Your task to perform on an android device: turn off location history Image 0: 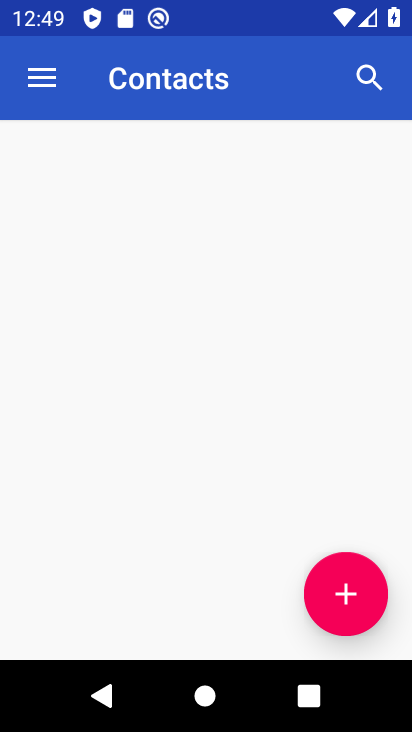
Step 0: press home button
Your task to perform on an android device: turn off location history Image 1: 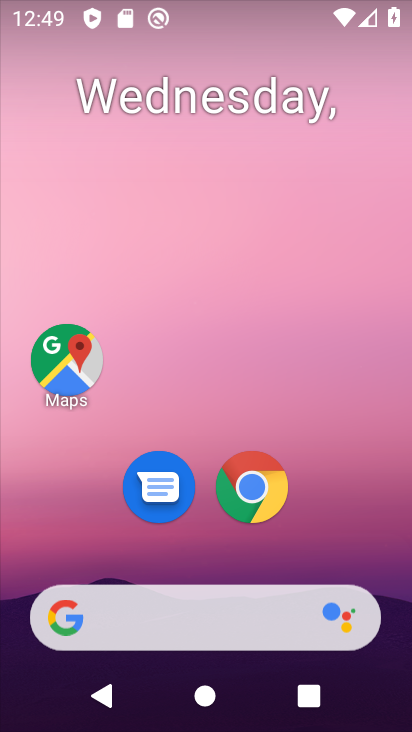
Step 1: drag from (202, 545) to (267, 75)
Your task to perform on an android device: turn off location history Image 2: 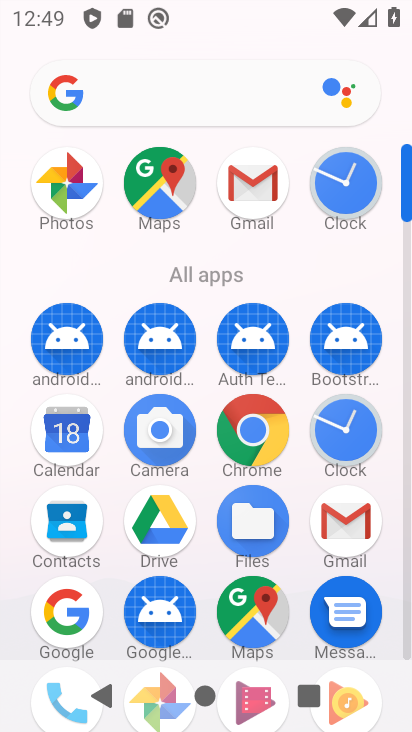
Step 2: drag from (239, 479) to (250, 344)
Your task to perform on an android device: turn off location history Image 3: 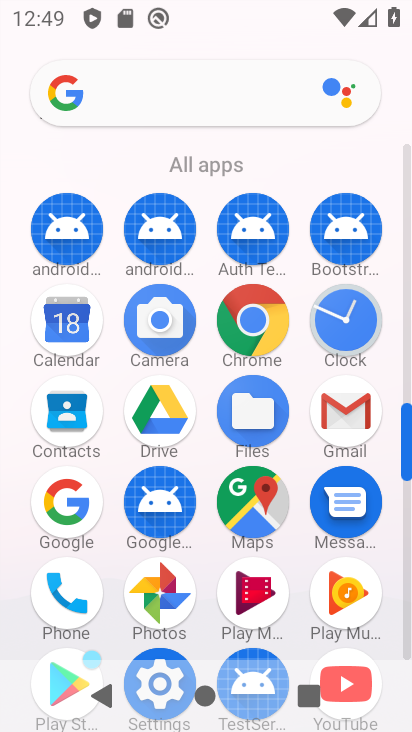
Step 3: drag from (213, 542) to (239, 283)
Your task to perform on an android device: turn off location history Image 4: 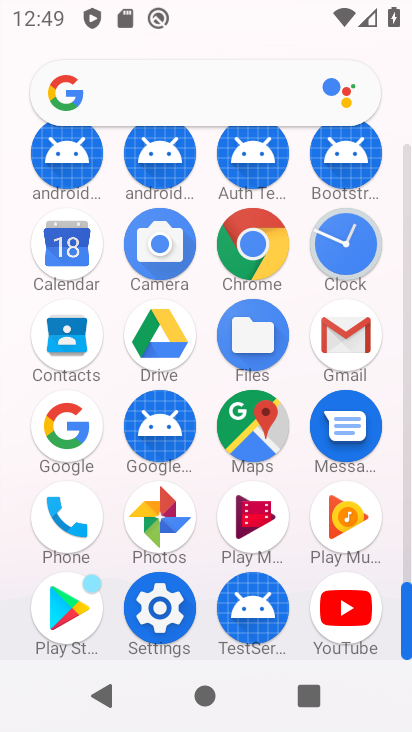
Step 4: click (166, 618)
Your task to perform on an android device: turn off location history Image 5: 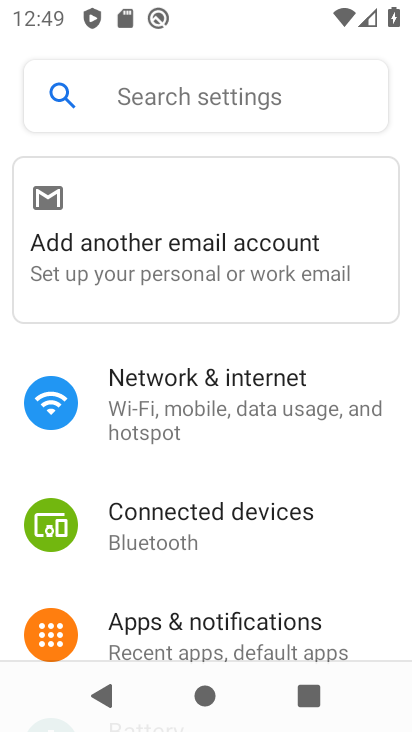
Step 5: drag from (162, 569) to (236, 252)
Your task to perform on an android device: turn off location history Image 6: 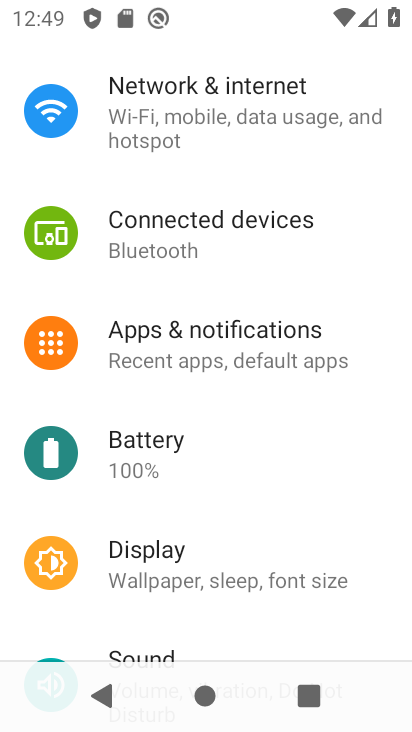
Step 6: drag from (191, 487) to (220, 318)
Your task to perform on an android device: turn off location history Image 7: 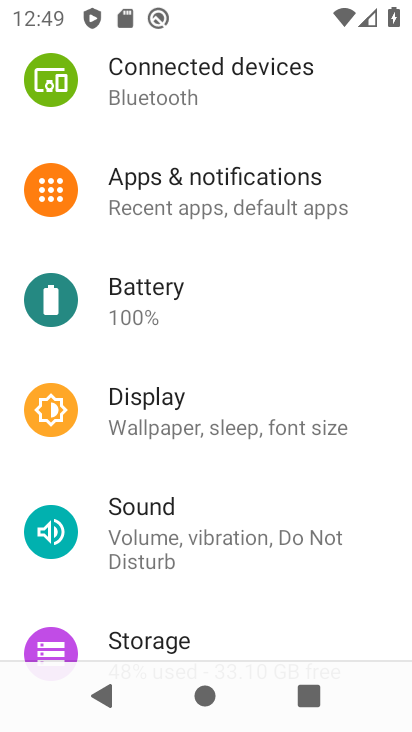
Step 7: drag from (220, 505) to (251, 310)
Your task to perform on an android device: turn off location history Image 8: 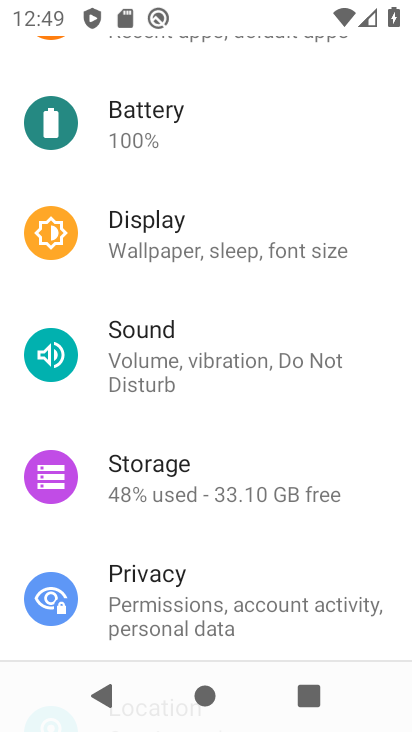
Step 8: drag from (212, 495) to (239, 340)
Your task to perform on an android device: turn off location history Image 9: 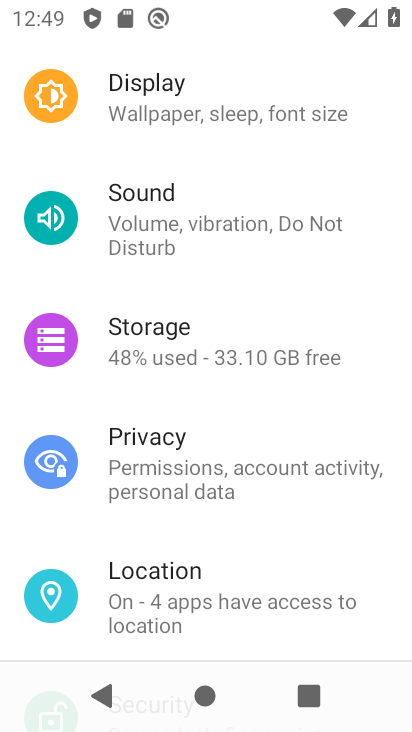
Step 9: drag from (188, 565) to (222, 341)
Your task to perform on an android device: turn off location history Image 10: 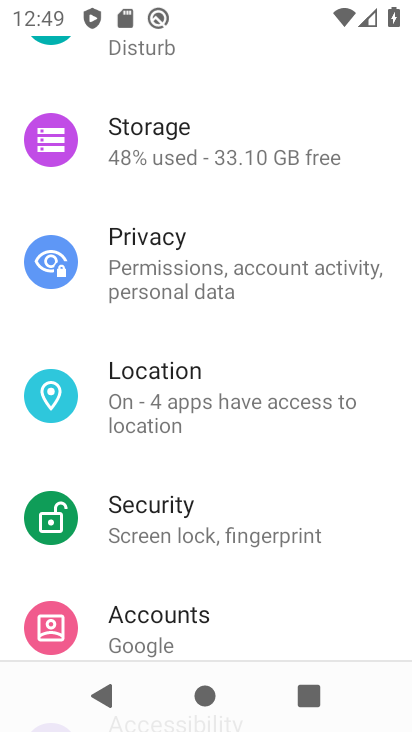
Step 10: click (198, 416)
Your task to perform on an android device: turn off location history Image 11: 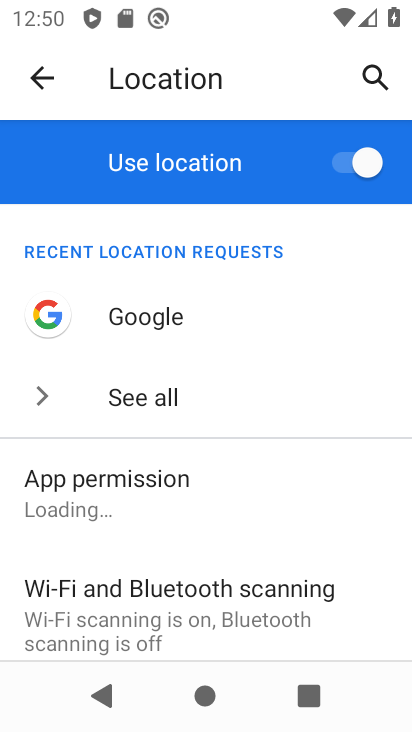
Step 11: drag from (211, 511) to (223, 254)
Your task to perform on an android device: turn off location history Image 12: 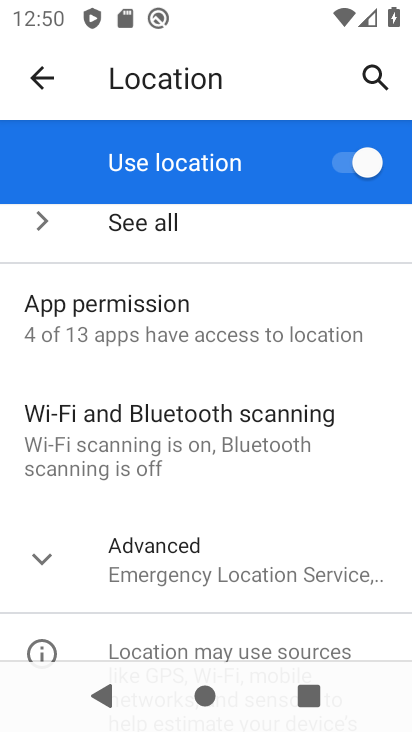
Step 12: drag from (193, 550) to (208, 388)
Your task to perform on an android device: turn off location history Image 13: 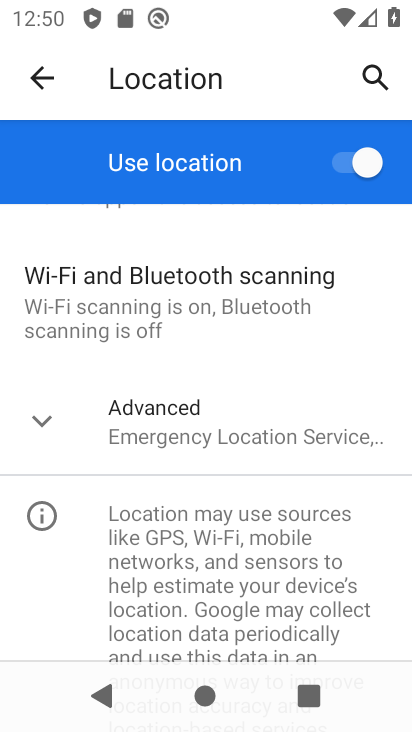
Step 13: click (138, 474)
Your task to perform on an android device: turn off location history Image 14: 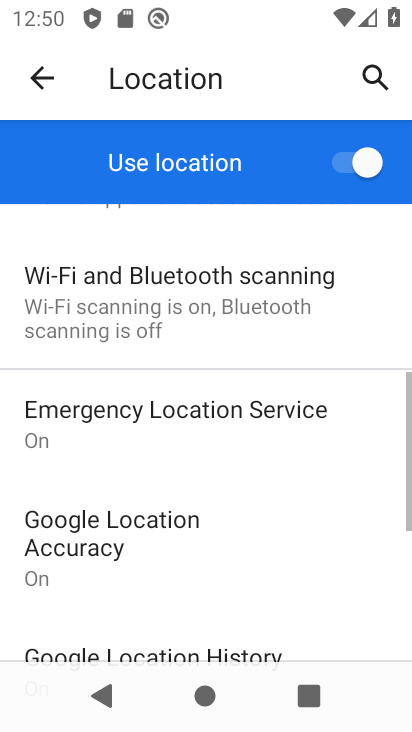
Step 14: click (141, 432)
Your task to perform on an android device: turn off location history Image 15: 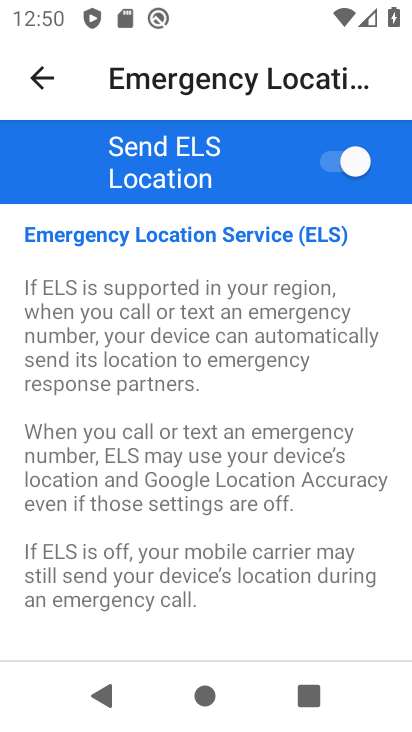
Step 15: click (46, 79)
Your task to perform on an android device: turn off location history Image 16: 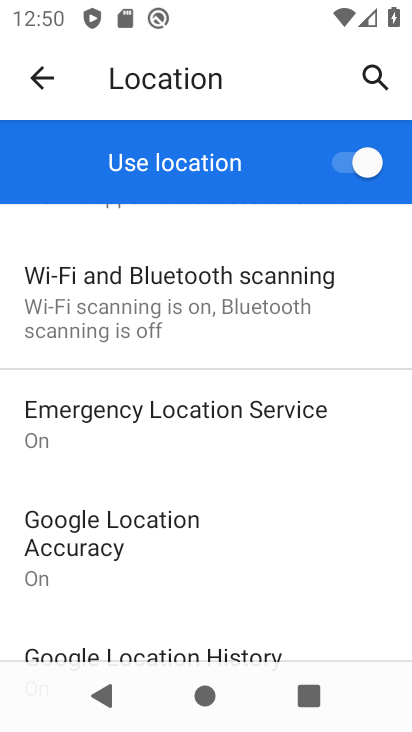
Step 16: drag from (182, 566) to (224, 326)
Your task to perform on an android device: turn off location history Image 17: 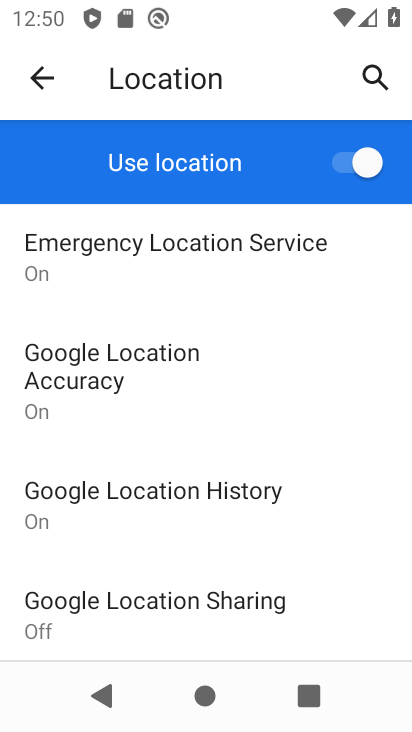
Step 17: drag from (190, 609) to (190, 537)
Your task to perform on an android device: turn off location history Image 18: 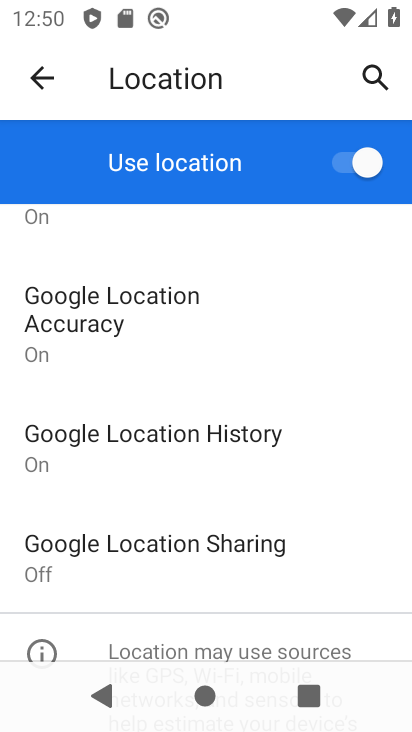
Step 18: click (146, 451)
Your task to perform on an android device: turn off location history Image 19: 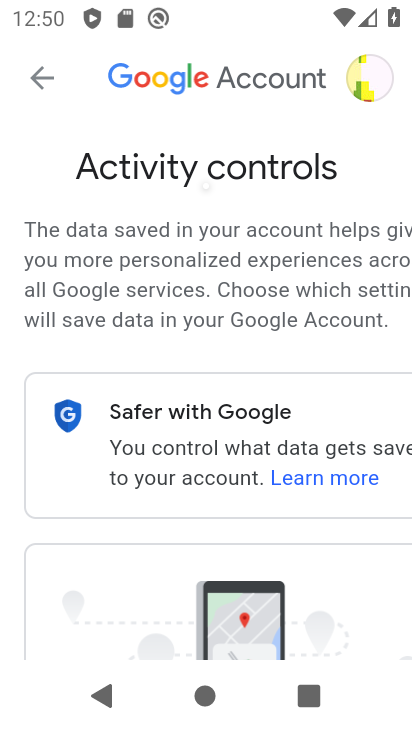
Step 19: drag from (212, 531) to (237, 228)
Your task to perform on an android device: turn off location history Image 20: 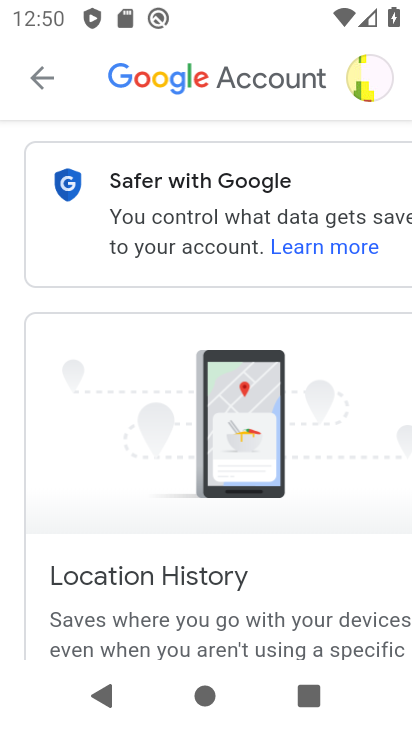
Step 20: drag from (231, 500) to (245, 170)
Your task to perform on an android device: turn off location history Image 21: 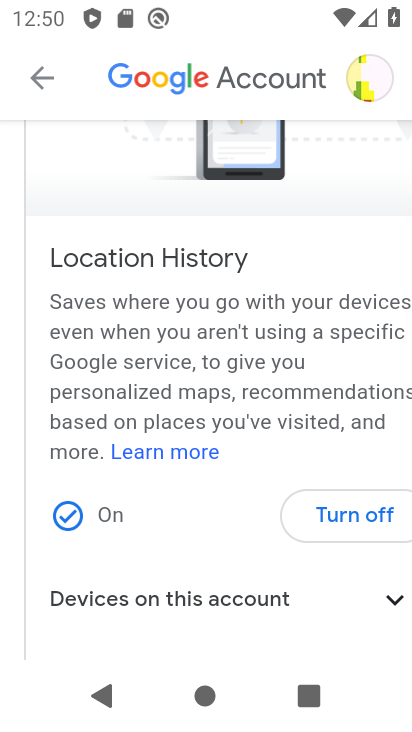
Step 21: click (321, 509)
Your task to perform on an android device: turn off location history Image 22: 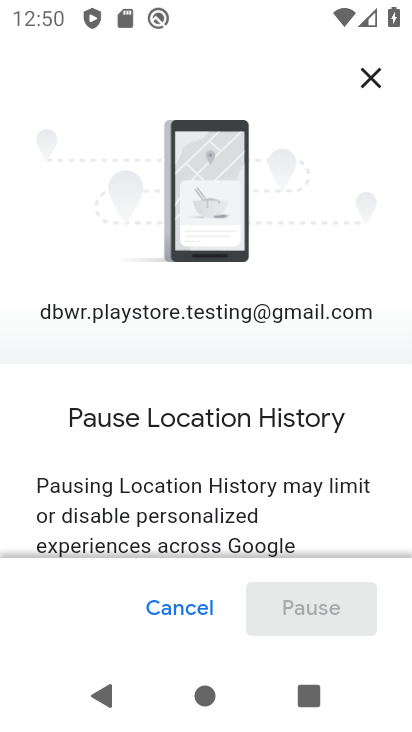
Step 22: drag from (270, 544) to (279, 239)
Your task to perform on an android device: turn off location history Image 23: 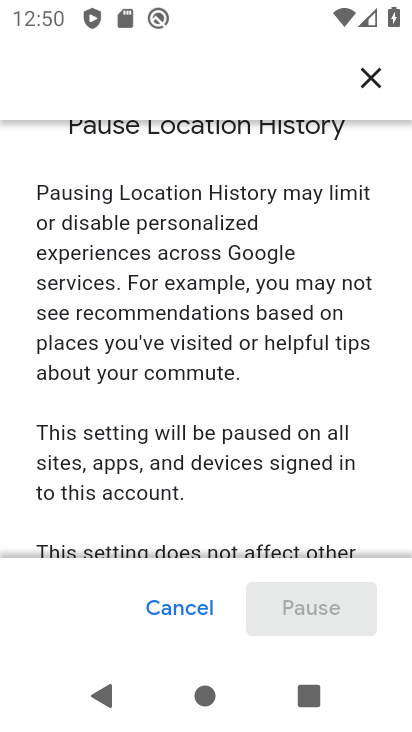
Step 23: drag from (261, 484) to (296, 185)
Your task to perform on an android device: turn off location history Image 24: 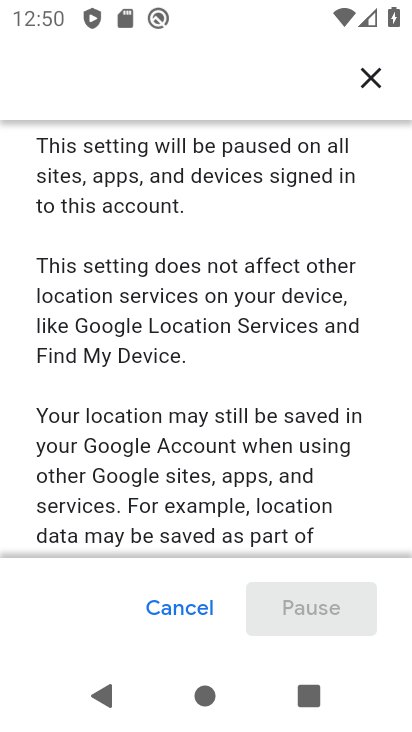
Step 24: drag from (293, 463) to (295, 168)
Your task to perform on an android device: turn off location history Image 25: 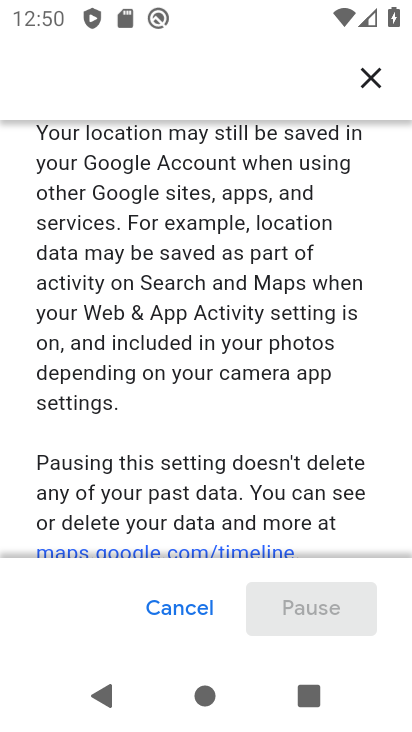
Step 25: drag from (253, 503) to (296, 153)
Your task to perform on an android device: turn off location history Image 26: 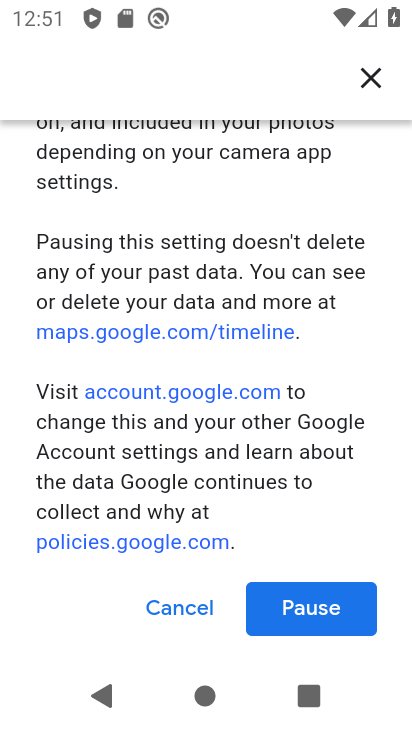
Step 26: click (312, 605)
Your task to perform on an android device: turn off location history Image 27: 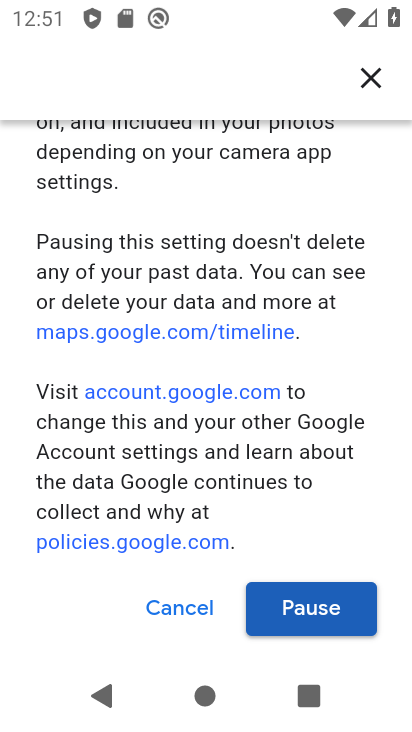
Step 27: click (322, 600)
Your task to perform on an android device: turn off location history Image 28: 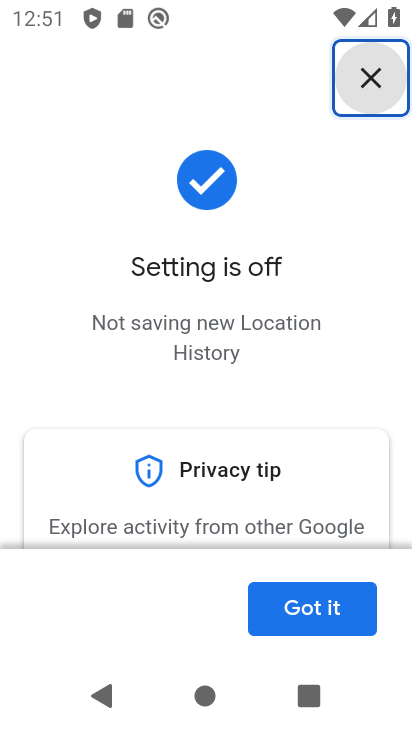
Step 28: click (305, 604)
Your task to perform on an android device: turn off location history Image 29: 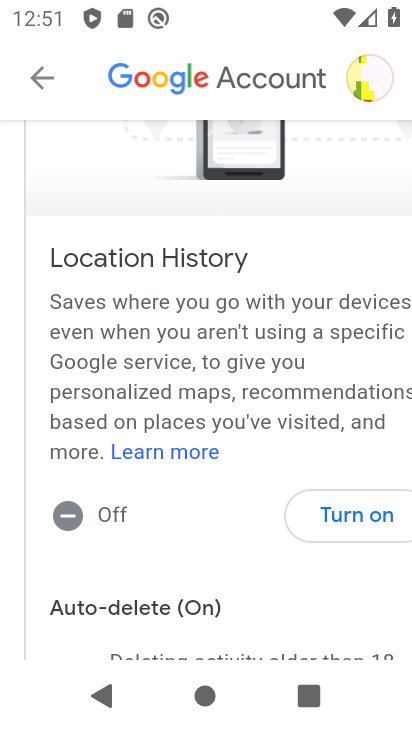
Step 29: task complete